Your task to perform on an android device: Check the news Image 0: 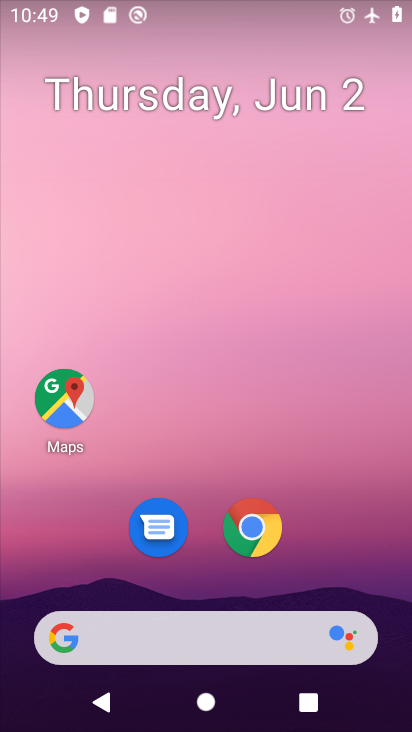
Step 0: drag from (15, 262) to (374, 302)
Your task to perform on an android device: Check the news Image 1: 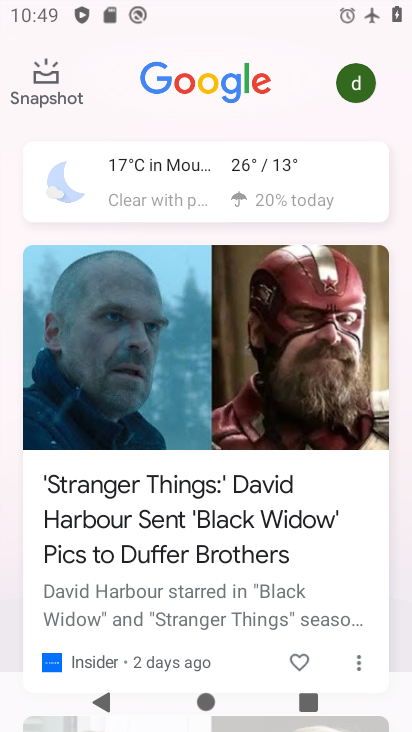
Step 1: task complete